Your task to perform on an android device: delete browsing data in the chrome app Image 0: 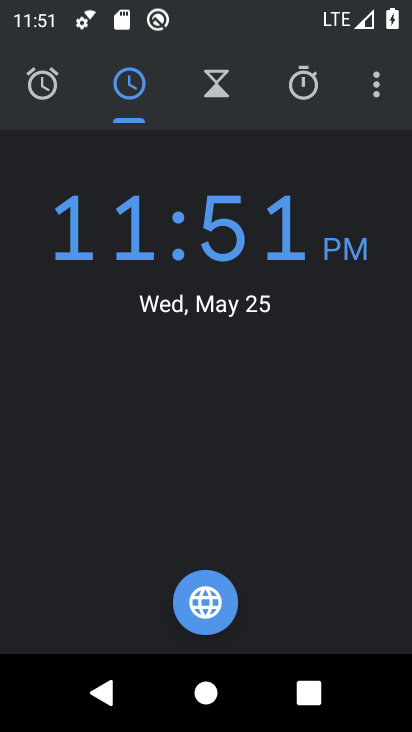
Step 0: press home button
Your task to perform on an android device: delete browsing data in the chrome app Image 1: 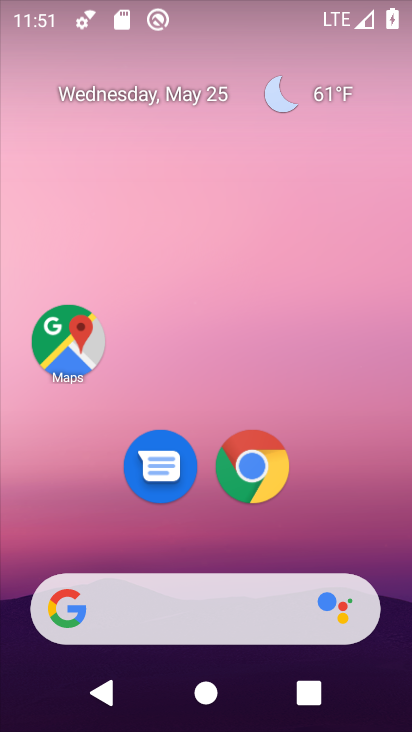
Step 1: click (251, 486)
Your task to perform on an android device: delete browsing data in the chrome app Image 2: 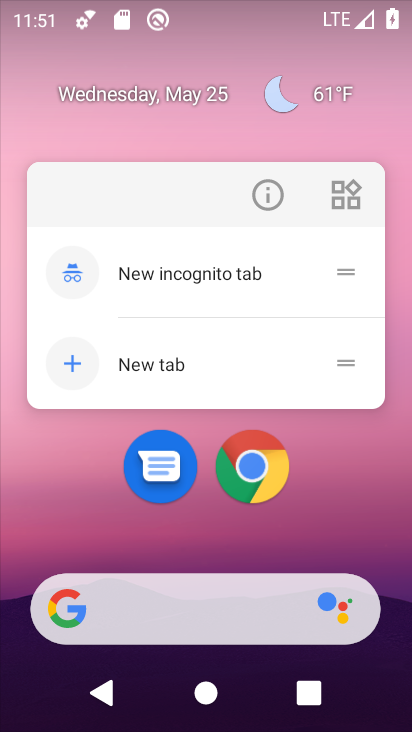
Step 2: click (253, 484)
Your task to perform on an android device: delete browsing data in the chrome app Image 3: 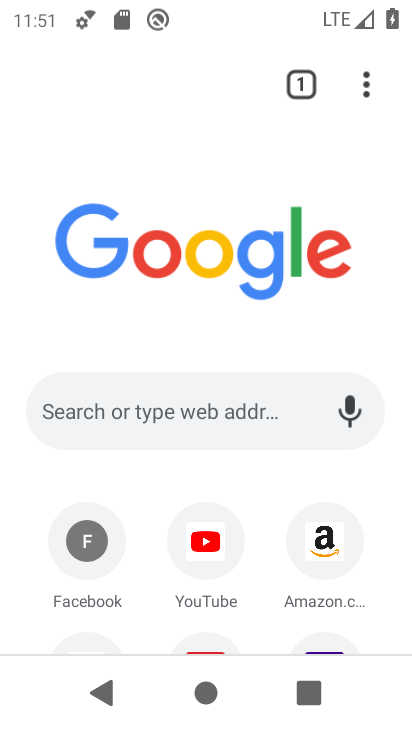
Step 3: click (368, 73)
Your task to perform on an android device: delete browsing data in the chrome app Image 4: 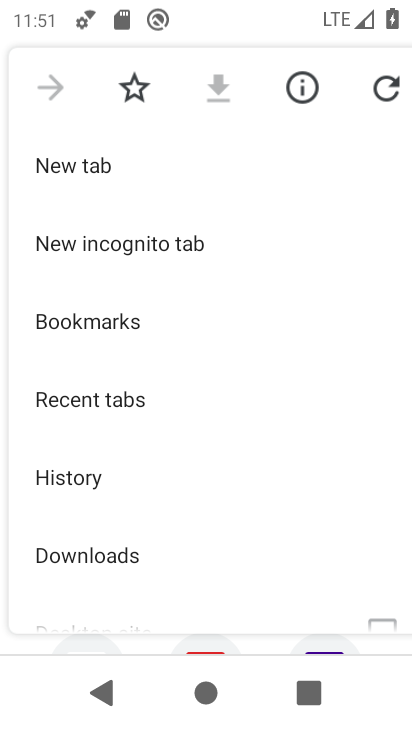
Step 4: drag from (111, 460) to (140, 324)
Your task to perform on an android device: delete browsing data in the chrome app Image 5: 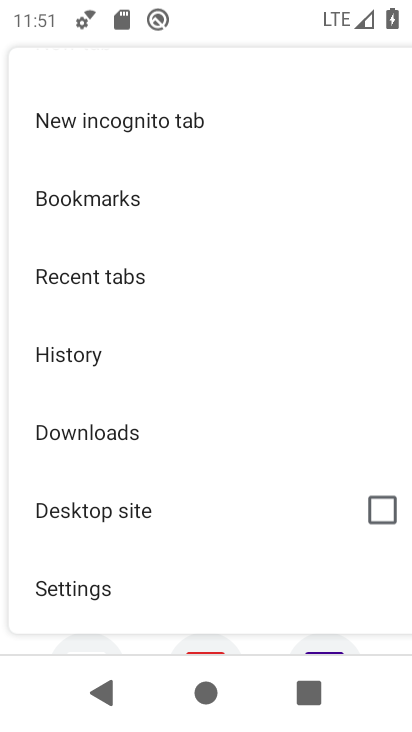
Step 5: drag from (116, 517) to (155, 368)
Your task to perform on an android device: delete browsing data in the chrome app Image 6: 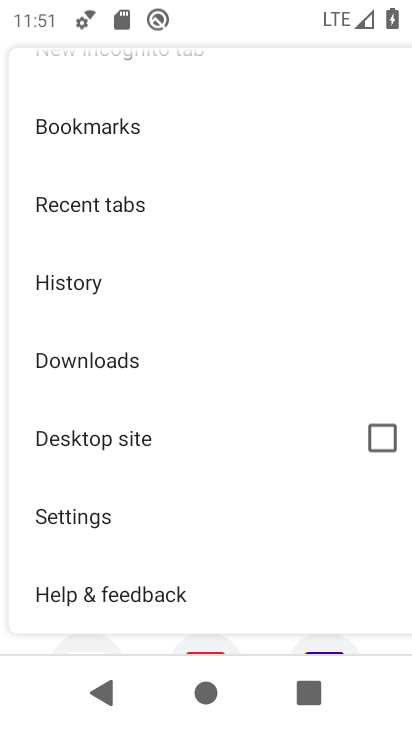
Step 6: click (110, 285)
Your task to perform on an android device: delete browsing data in the chrome app Image 7: 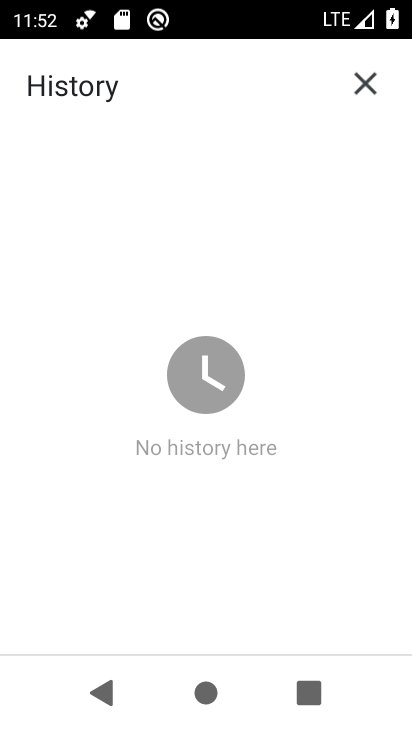
Step 7: task complete